Your task to perform on an android device: Open Youtube and go to "Your channel" Image 0: 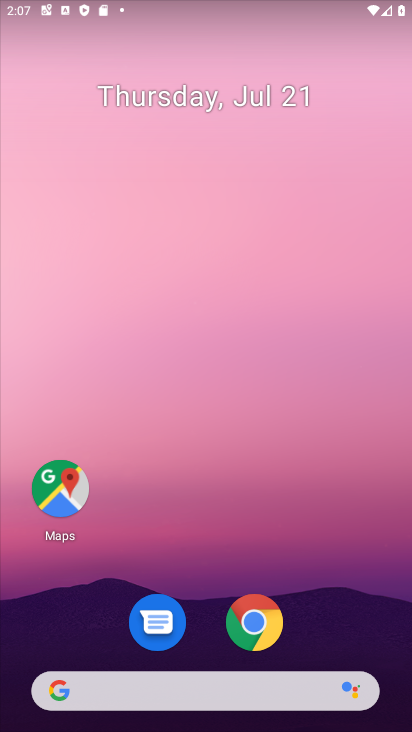
Step 0: drag from (302, 704) to (241, 215)
Your task to perform on an android device: Open Youtube and go to "Your channel" Image 1: 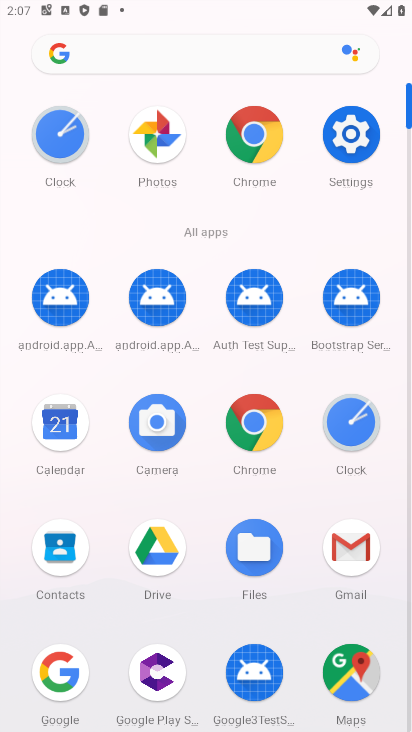
Step 1: drag from (197, 582) to (184, 339)
Your task to perform on an android device: Open Youtube and go to "Your channel" Image 2: 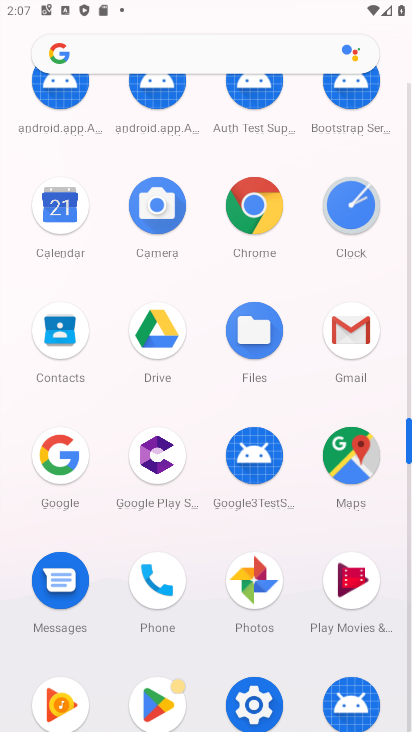
Step 2: drag from (212, 637) to (214, 312)
Your task to perform on an android device: Open Youtube and go to "Your channel" Image 3: 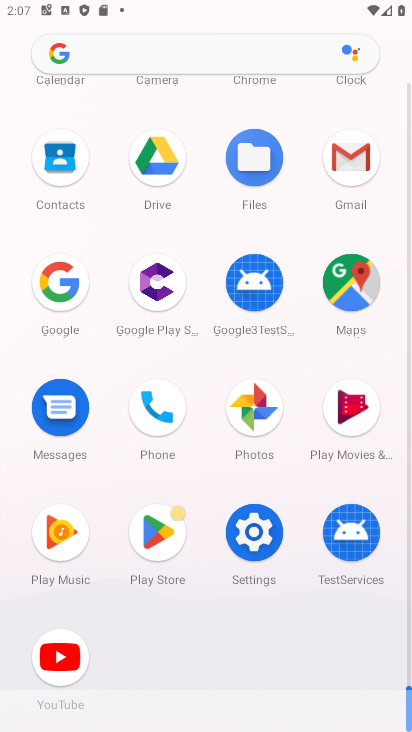
Step 3: click (70, 635)
Your task to perform on an android device: Open Youtube and go to "Your channel" Image 4: 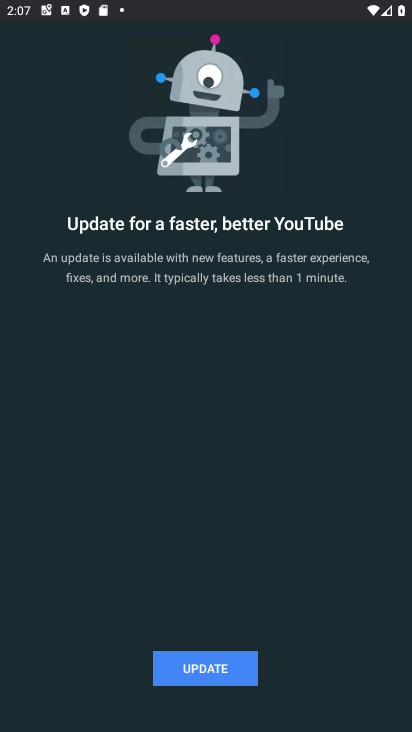
Step 4: click (235, 664)
Your task to perform on an android device: Open Youtube and go to "Your channel" Image 5: 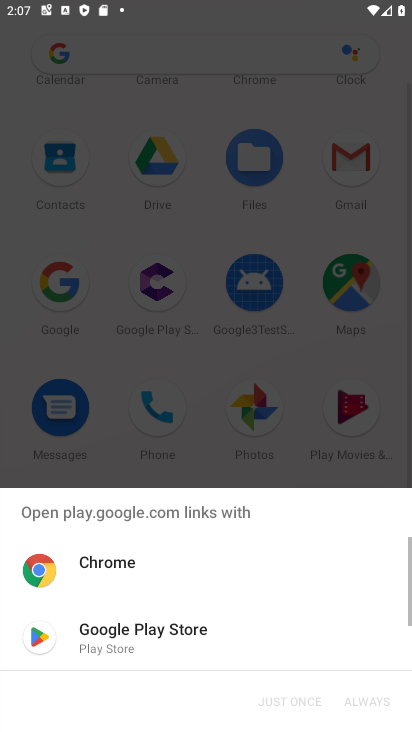
Step 5: click (175, 641)
Your task to perform on an android device: Open Youtube and go to "Your channel" Image 6: 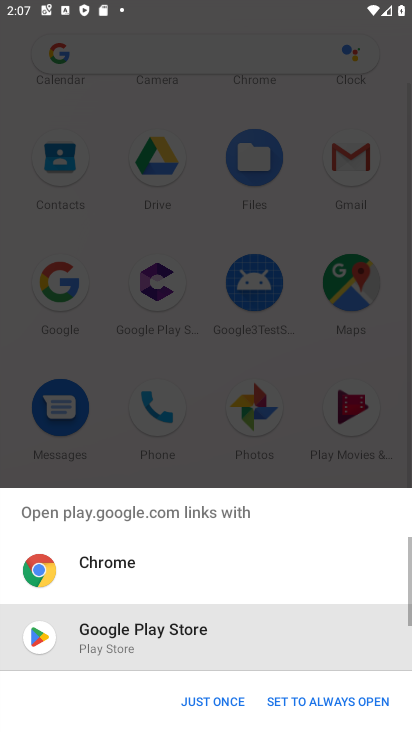
Step 6: click (228, 701)
Your task to perform on an android device: Open Youtube and go to "Your channel" Image 7: 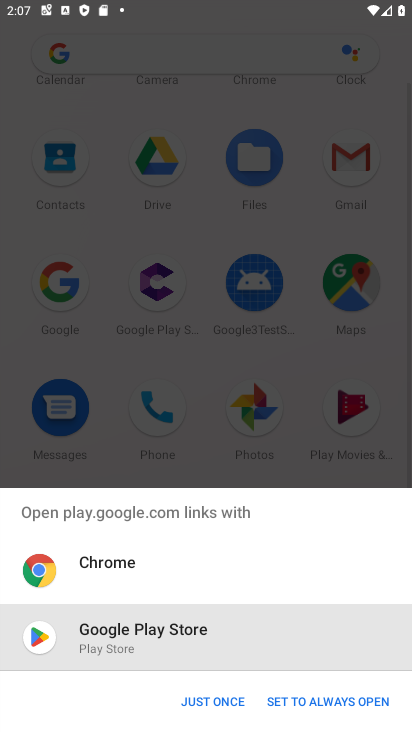
Step 7: click (222, 697)
Your task to perform on an android device: Open Youtube and go to "Your channel" Image 8: 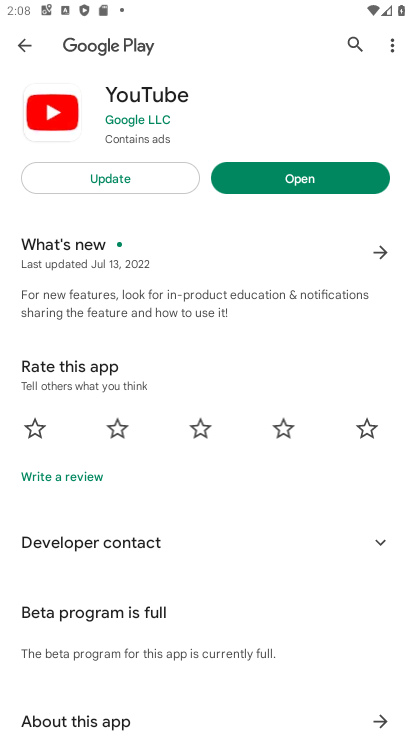
Step 8: click (126, 179)
Your task to perform on an android device: Open Youtube and go to "Your channel" Image 9: 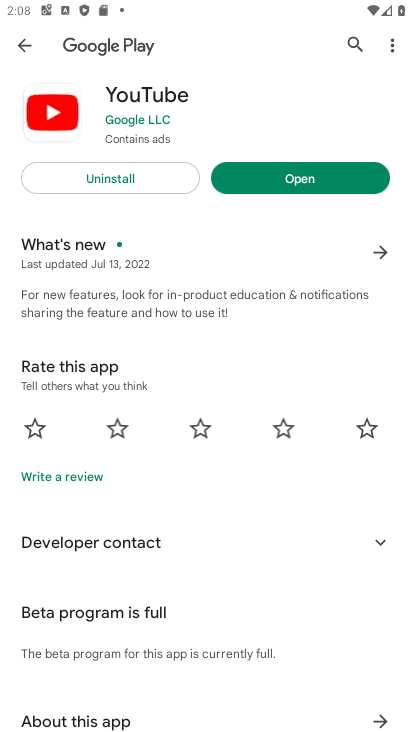
Step 9: click (308, 175)
Your task to perform on an android device: Open Youtube and go to "Your channel" Image 10: 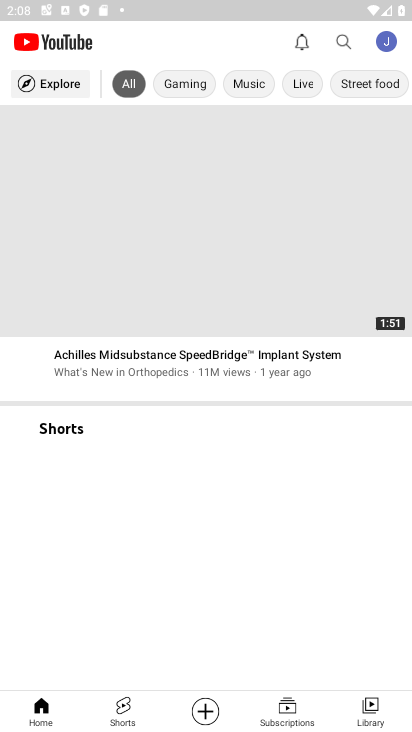
Step 10: click (378, 48)
Your task to perform on an android device: Open Youtube and go to "Your channel" Image 11: 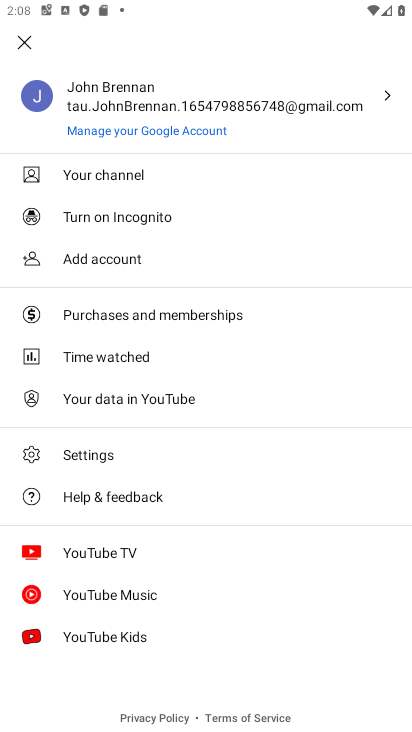
Step 11: click (125, 177)
Your task to perform on an android device: Open Youtube and go to "Your channel" Image 12: 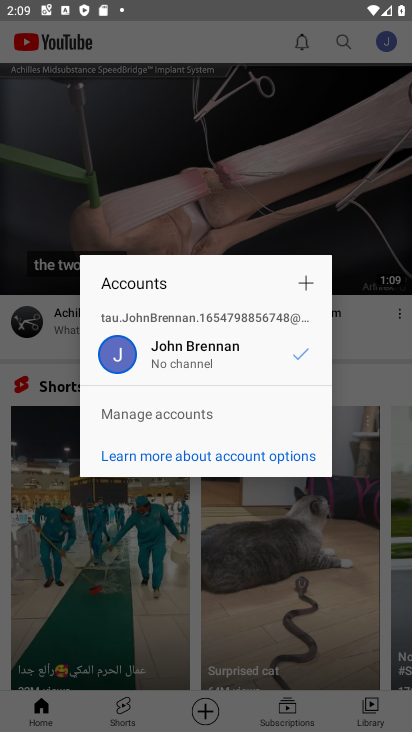
Step 12: task complete